Your task to perform on an android device: check data usage Image 0: 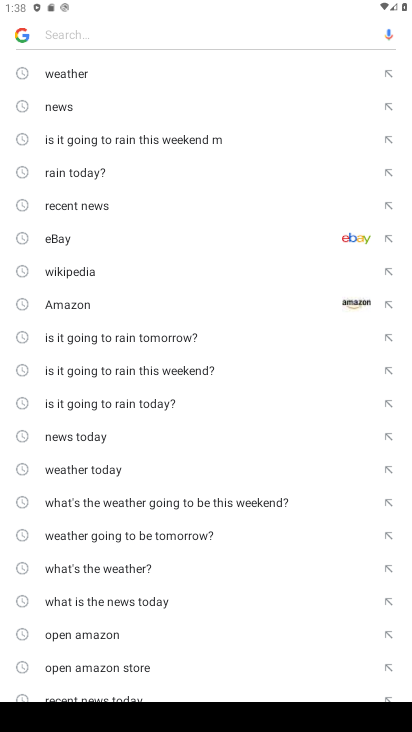
Step 0: task complete